Your task to perform on an android device: turn pop-ups off in chrome Image 0: 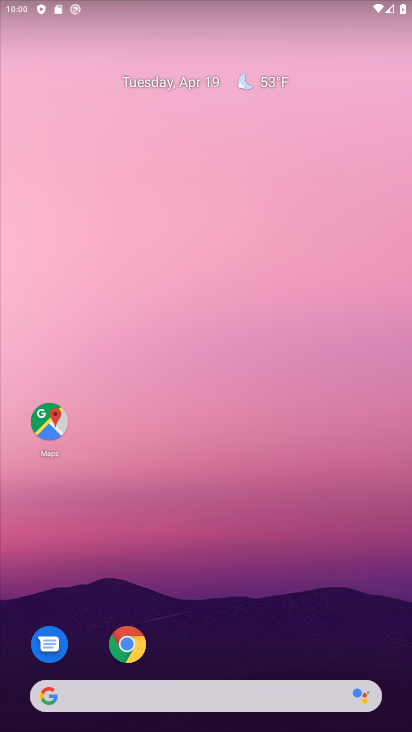
Step 0: click (136, 647)
Your task to perform on an android device: turn pop-ups off in chrome Image 1: 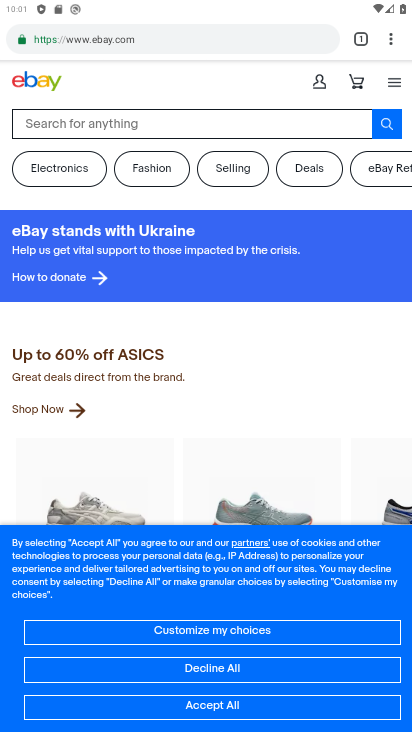
Step 1: click (385, 38)
Your task to perform on an android device: turn pop-ups off in chrome Image 2: 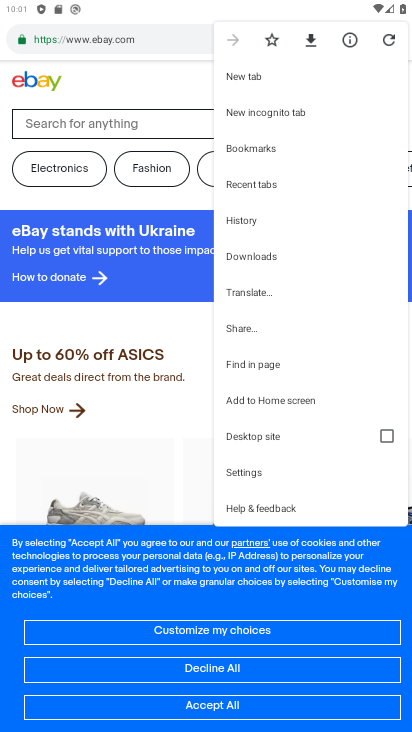
Step 2: click (257, 470)
Your task to perform on an android device: turn pop-ups off in chrome Image 3: 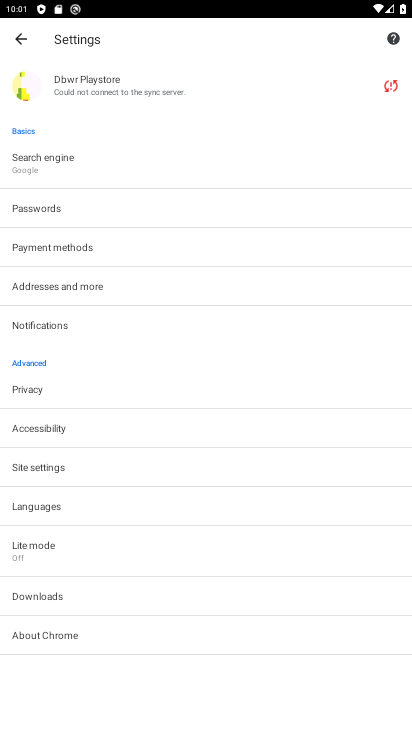
Step 3: click (85, 468)
Your task to perform on an android device: turn pop-ups off in chrome Image 4: 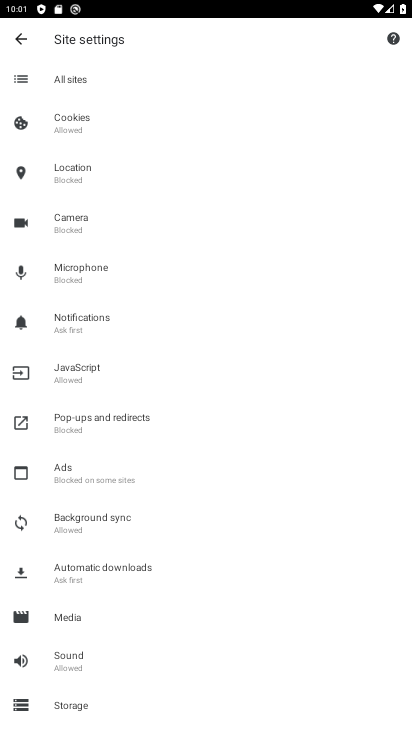
Step 4: click (109, 425)
Your task to perform on an android device: turn pop-ups off in chrome Image 5: 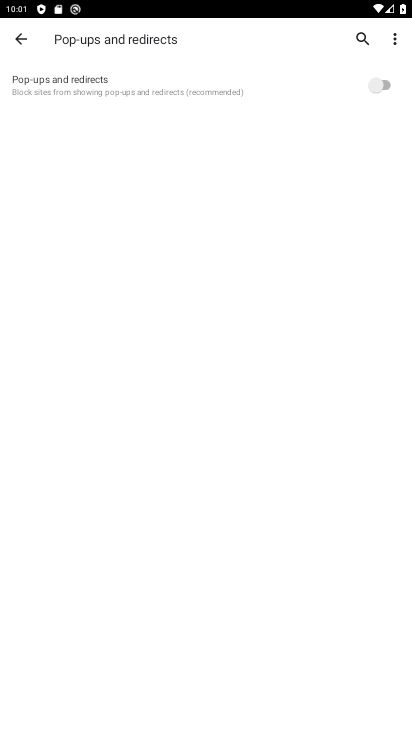
Step 5: task complete